Your task to perform on an android device: Open Google Chrome Image 0: 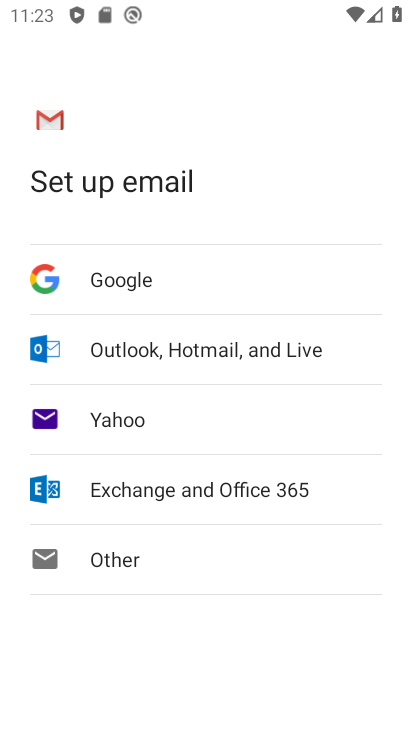
Step 0: press home button
Your task to perform on an android device: Open Google Chrome Image 1: 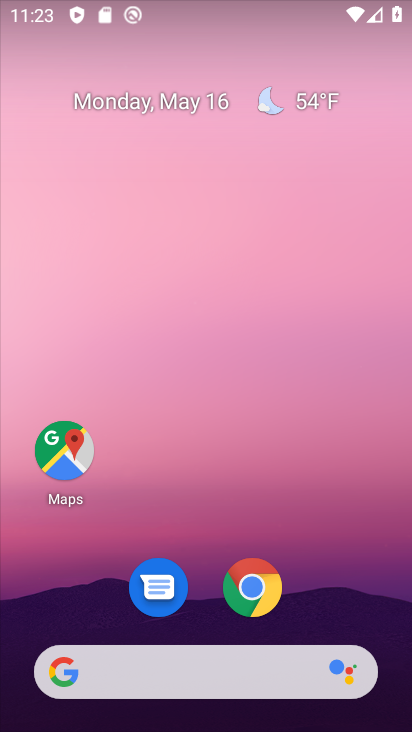
Step 1: click (246, 593)
Your task to perform on an android device: Open Google Chrome Image 2: 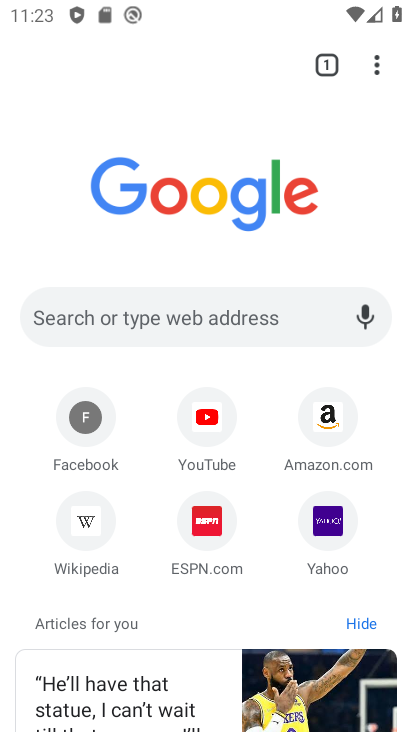
Step 2: task complete